Your task to perform on an android device: check storage Image 0: 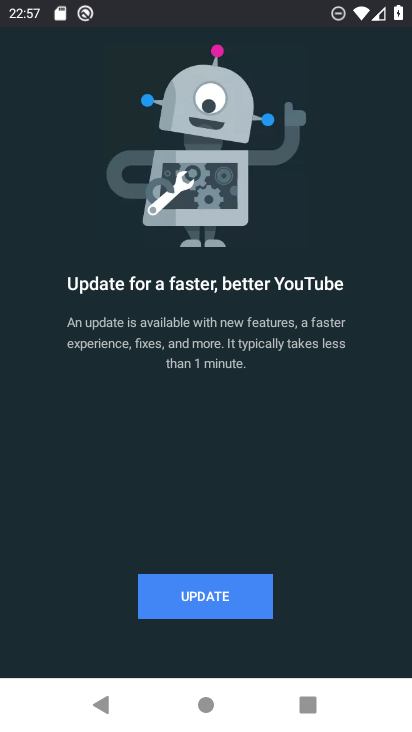
Step 0: press home button
Your task to perform on an android device: check storage Image 1: 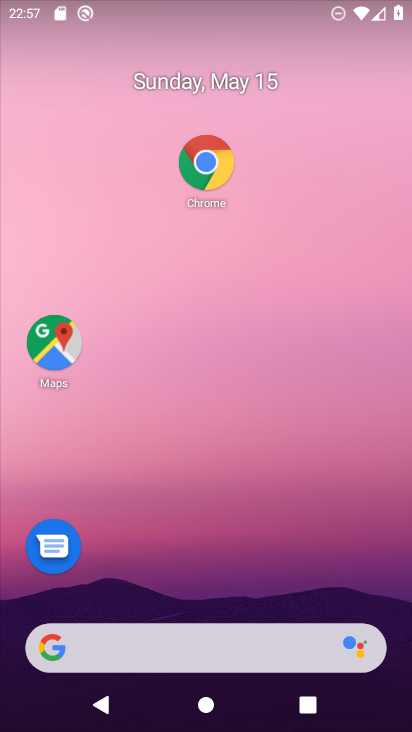
Step 1: drag from (185, 599) to (210, 329)
Your task to perform on an android device: check storage Image 2: 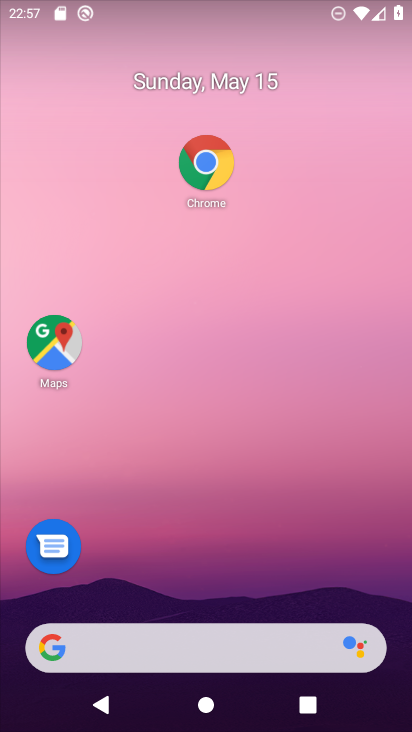
Step 2: drag from (225, 595) to (290, 204)
Your task to perform on an android device: check storage Image 3: 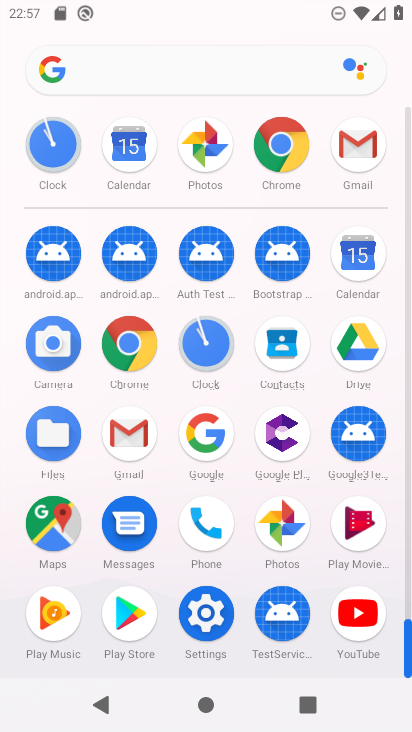
Step 3: click (200, 611)
Your task to perform on an android device: check storage Image 4: 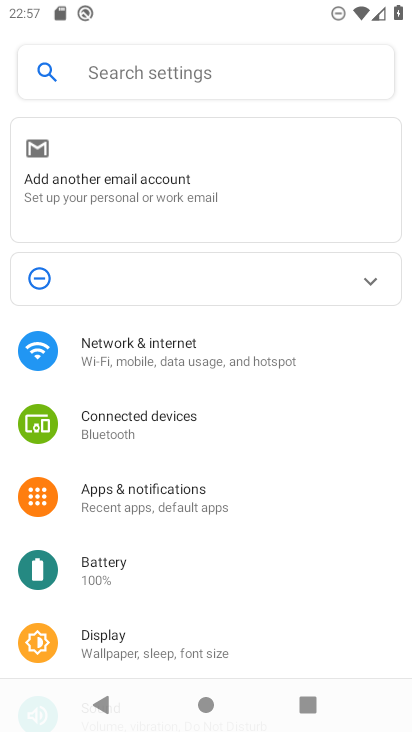
Step 4: drag from (184, 643) to (259, 154)
Your task to perform on an android device: check storage Image 5: 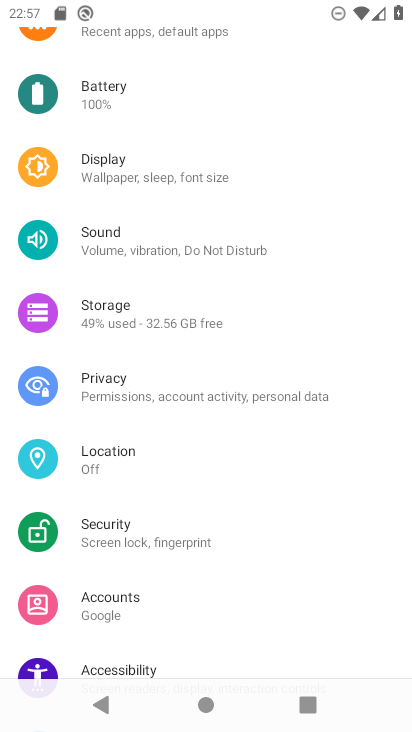
Step 5: click (144, 305)
Your task to perform on an android device: check storage Image 6: 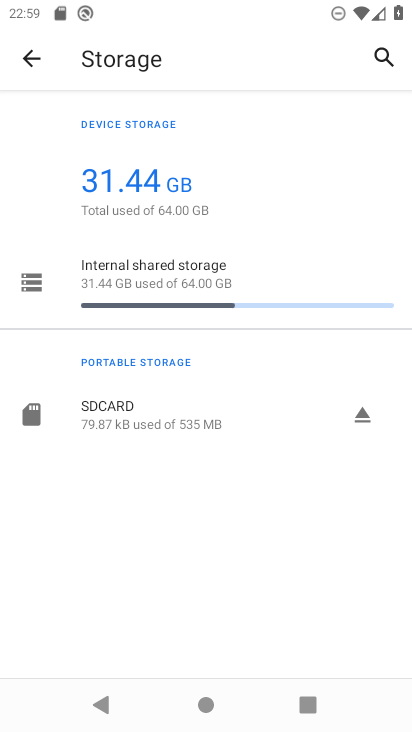
Step 6: task complete